Your task to perform on an android device: see creations saved in the google photos Image 0: 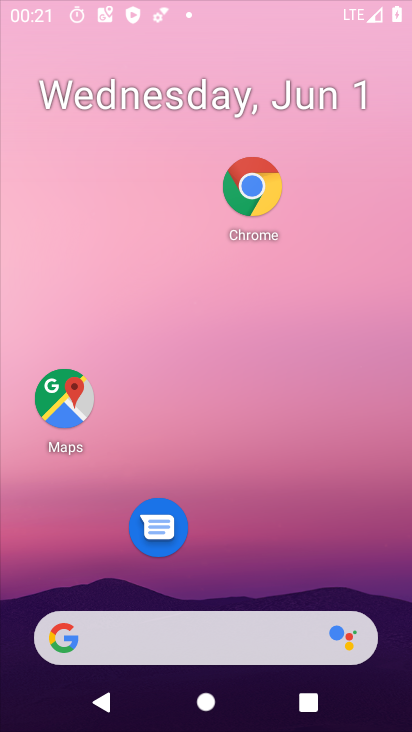
Step 0: click (193, 217)
Your task to perform on an android device: see creations saved in the google photos Image 1: 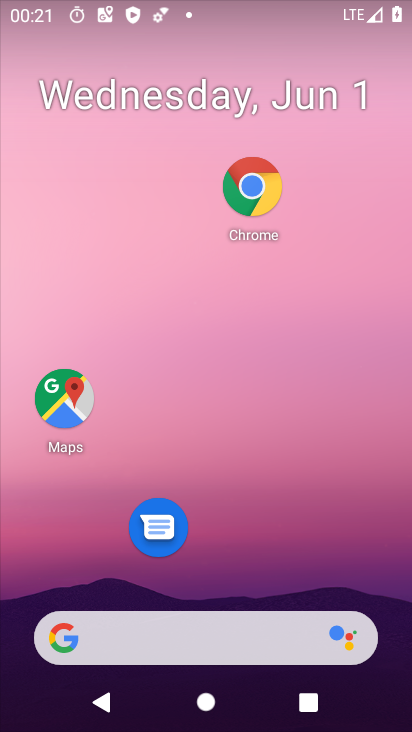
Step 1: drag from (217, 542) to (187, 182)
Your task to perform on an android device: see creations saved in the google photos Image 2: 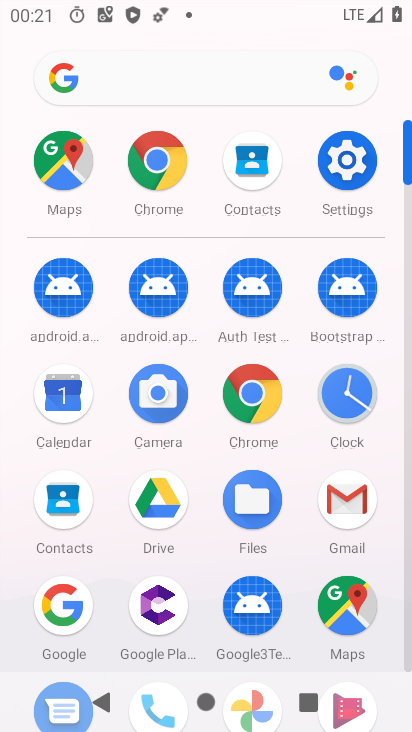
Step 2: drag from (201, 487) to (201, 176)
Your task to perform on an android device: see creations saved in the google photos Image 3: 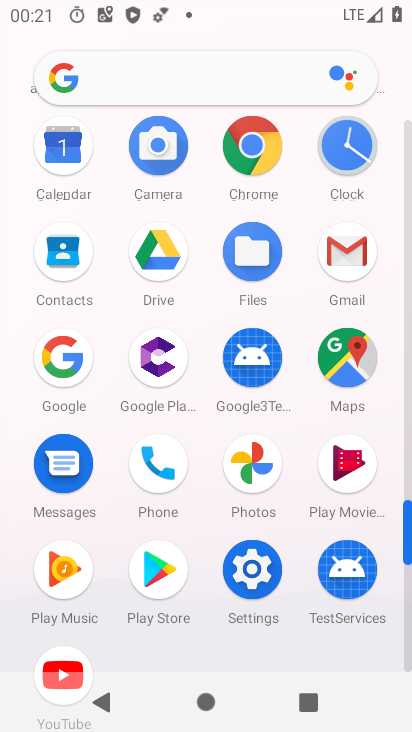
Step 3: drag from (195, 571) to (197, 193)
Your task to perform on an android device: see creations saved in the google photos Image 4: 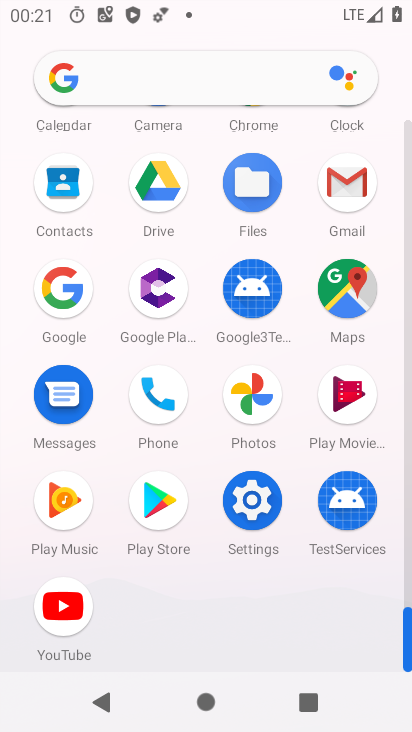
Step 4: click (256, 401)
Your task to perform on an android device: see creations saved in the google photos Image 5: 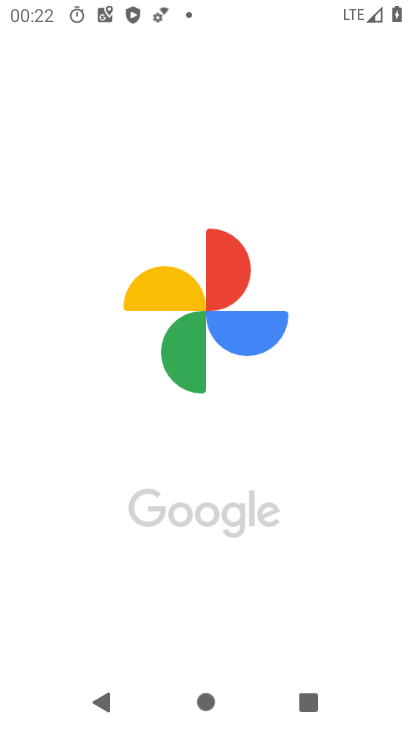
Step 5: drag from (210, 600) to (202, 310)
Your task to perform on an android device: see creations saved in the google photos Image 6: 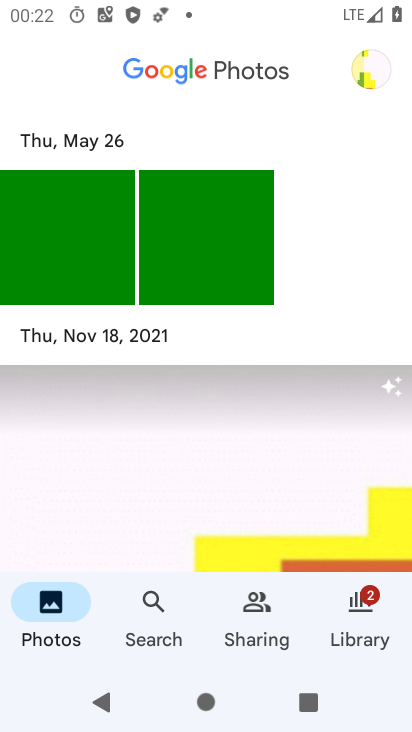
Step 6: drag from (237, 388) to (230, 127)
Your task to perform on an android device: see creations saved in the google photos Image 7: 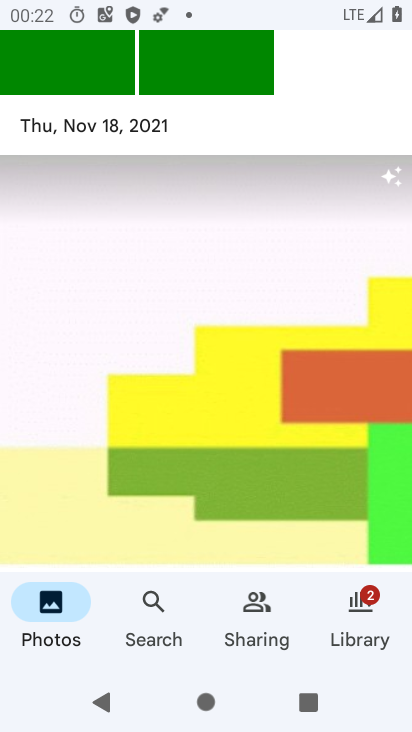
Step 7: drag from (218, 483) to (217, 115)
Your task to perform on an android device: see creations saved in the google photos Image 8: 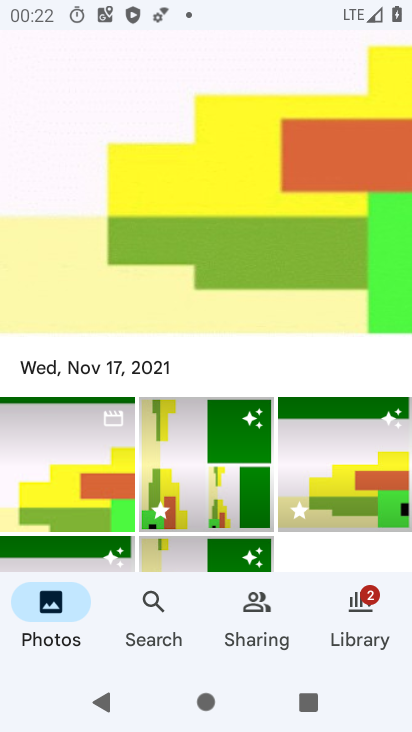
Step 8: drag from (318, 368) to (259, 77)
Your task to perform on an android device: see creations saved in the google photos Image 9: 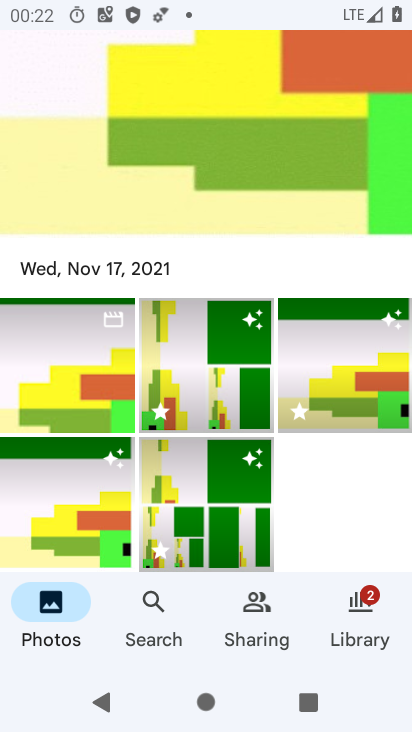
Step 9: drag from (213, 279) to (216, 126)
Your task to perform on an android device: see creations saved in the google photos Image 10: 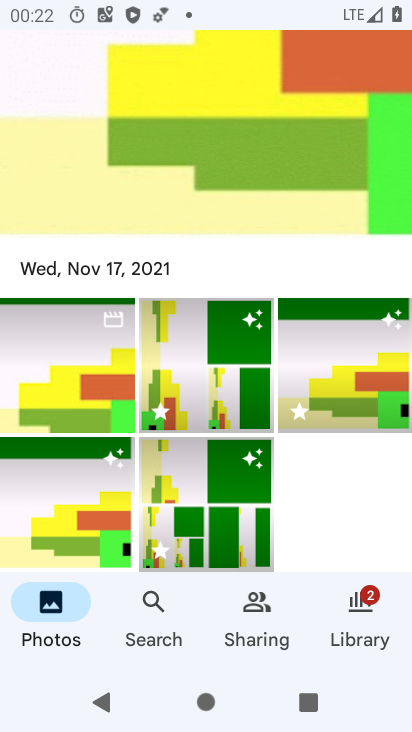
Step 10: drag from (217, 228) to (166, 46)
Your task to perform on an android device: see creations saved in the google photos Image 11: 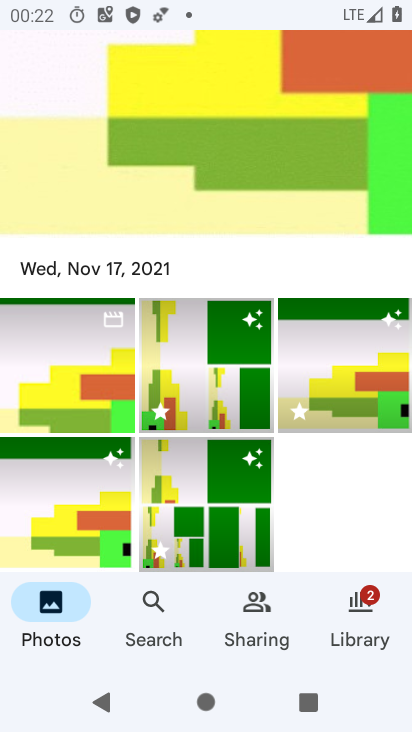
Step 11: drag from (207, 270) to (180, 103)
Your task to perform on an android device: see creations saved in the google photos Image 12: 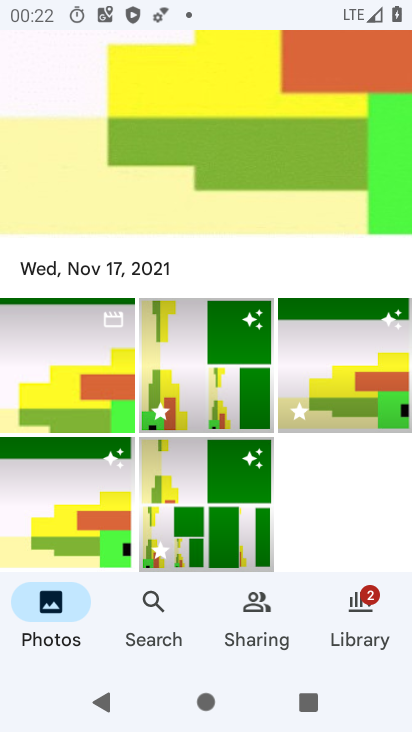
Step 12: drag from (248, 259) to (257, 138)
Your task to perform on an android device: see creations saved in the google photos Image 13: 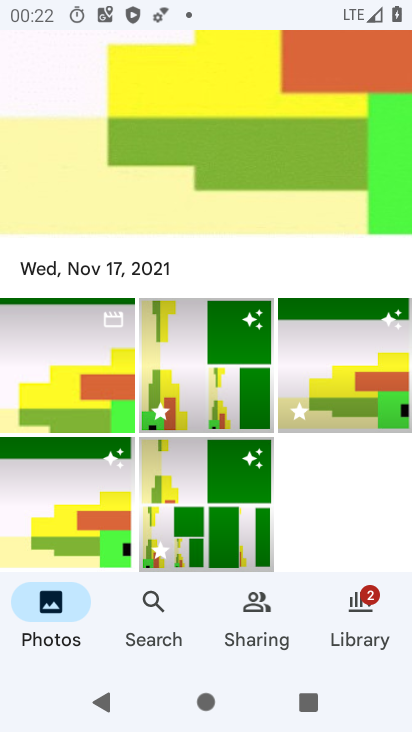
Step 13: drag from (278, 476) to (244, 131)
Your task to perform on an android device: see creations saved in the google photos Image 14: 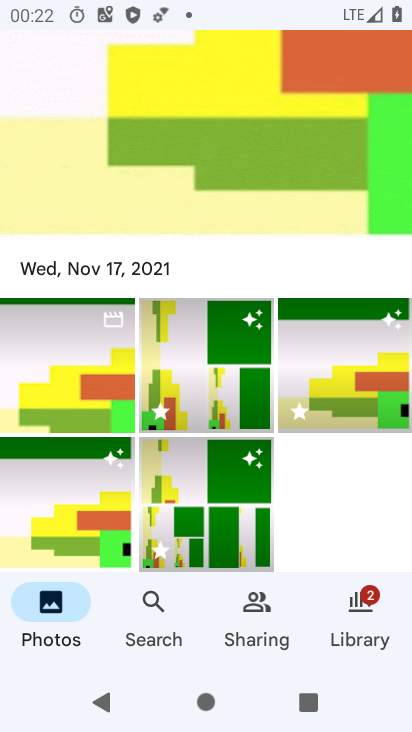
Step 14: click (153, 612)
Your task to perform on an android device: see creations saved in the google photos Image 15: 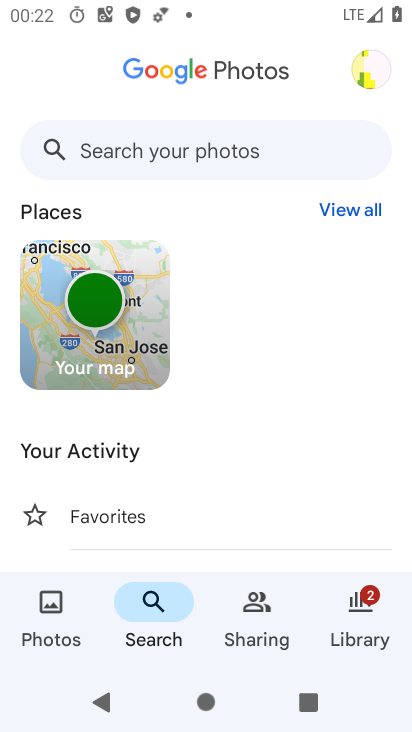
Step 15: click (126, 148)
Your task to perform on an android device: see creations saved in the google photos Image 16: 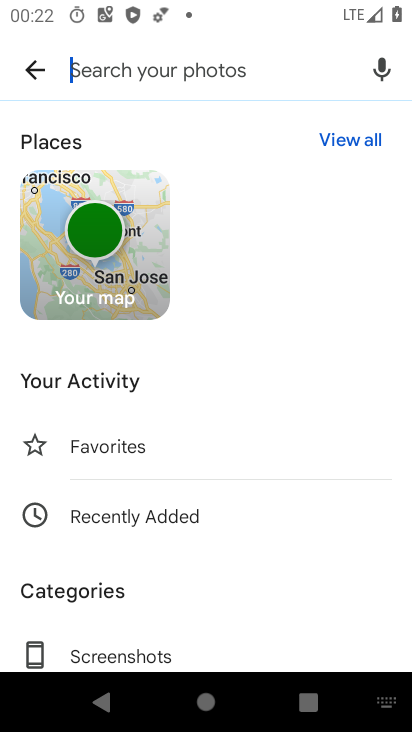
Step 16: drag from (177, 433) to (186, 60)
Your task to perform on an android device: see creations saved in the google photos Image 17: 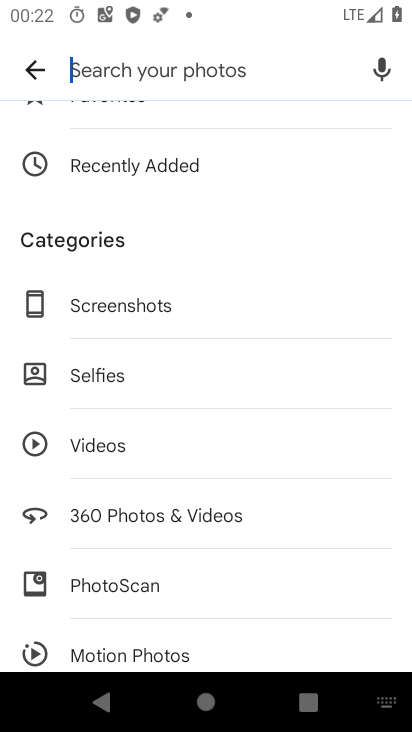
Step 17: drag from (150, 542) to (193, 197)
Your task to perform on an android device: see creations saved in the google photos Image 18: 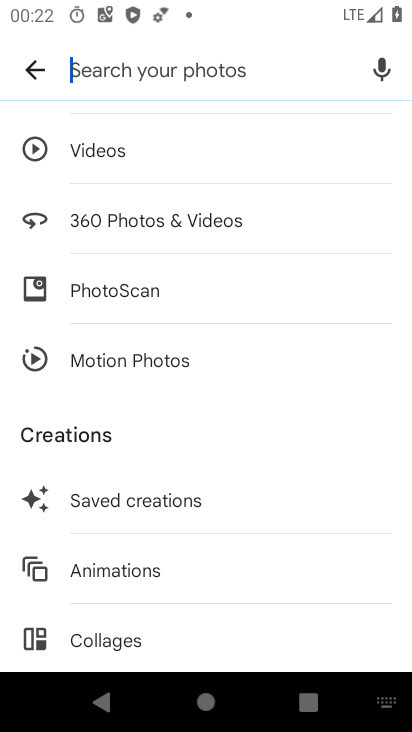
Step 18: click (102, 483)
Your task to perform on an android device: see creations saved in the google photos Image 19: 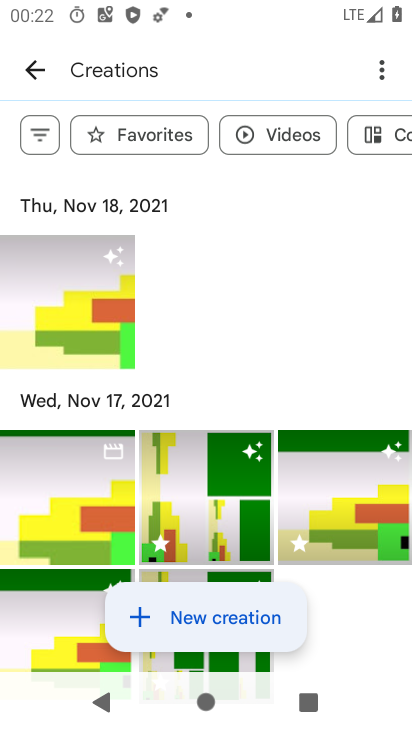
Step 19: drag from (186, 491) to (237, 100)
Your task to perform on an android device: see creations saved in the google photos Image 20: 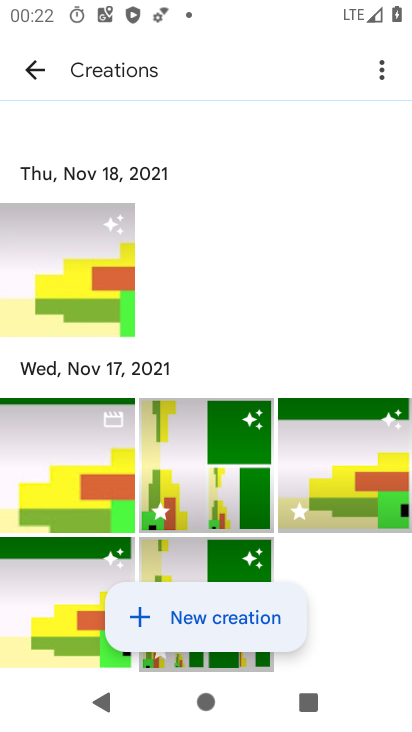
Step 20: click (60, 464)
Your task to perform on an android device: see creations saved in the google photos Image 21: 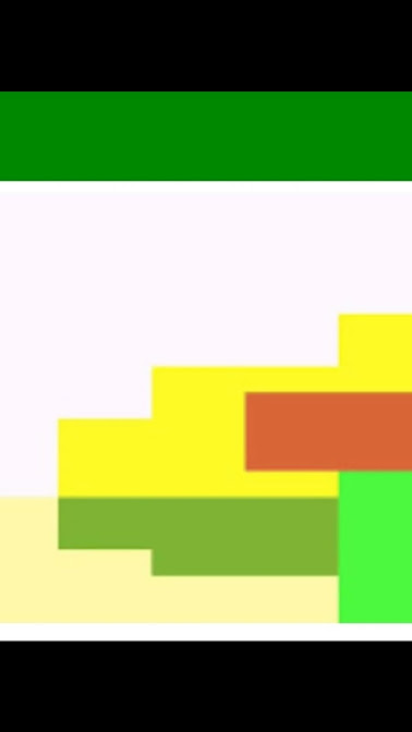
Step 21: drag from (356, 405) to (3, 437)
Your task to perform on an android device: see creations saved in the google photos Image 22: 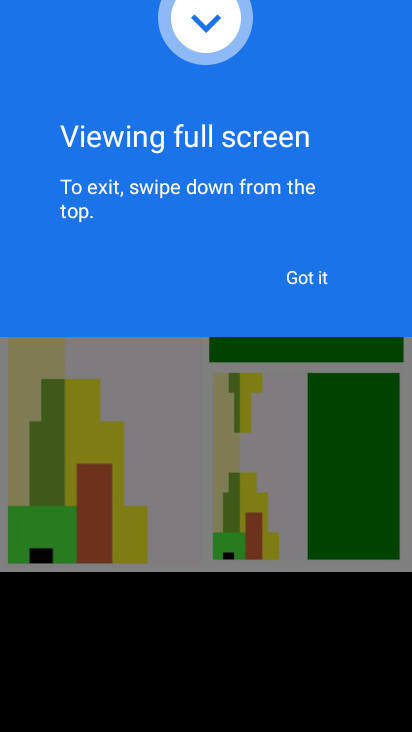
Step 22: click (307, 286)
Your task to perform on an android device: see creations saved in the google photos Image 23: 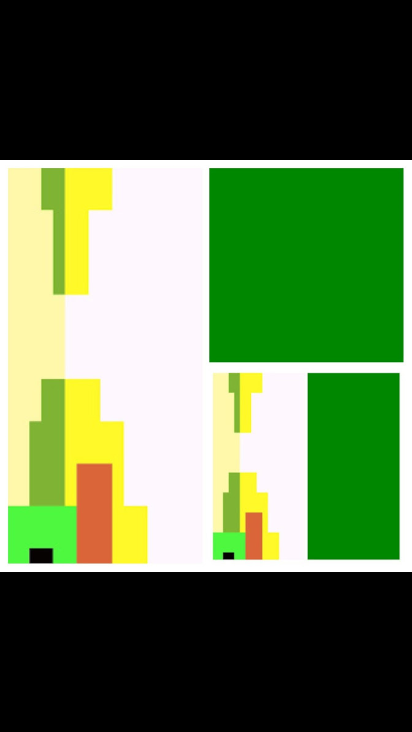
Step 23: task complete